Your task to perform on an android device: find snoozed emails in the gmail app Image 0: 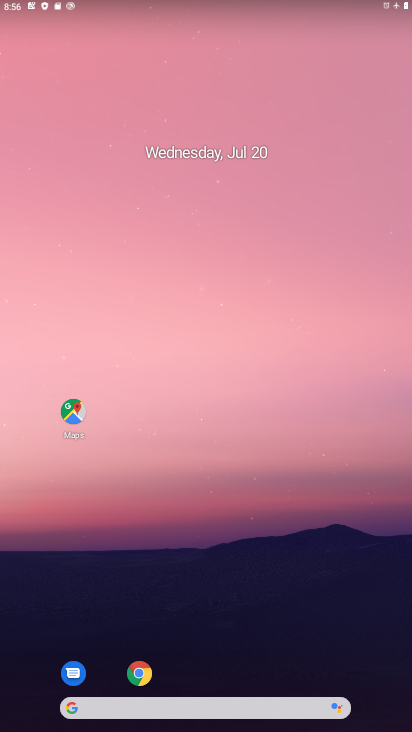
Step 0: drag from (241, 725) to (235, 231)
Your task to perform on an android device: find snoozed emails in the gmail app Image 1: 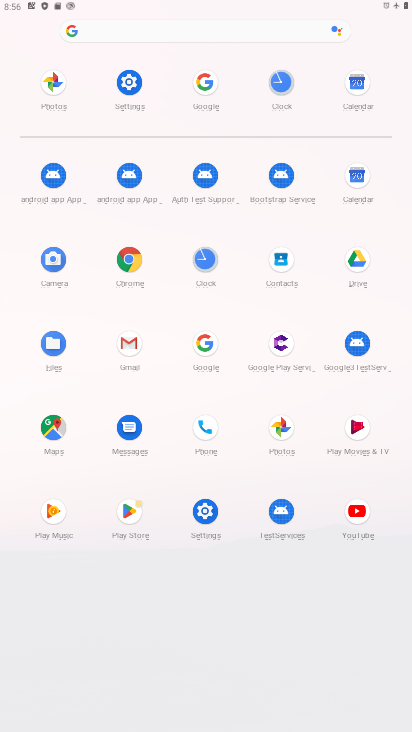
Step 1: click (129, 352)
Your task to perform on an android device: find snoozed emails in the gmail app Image 2: 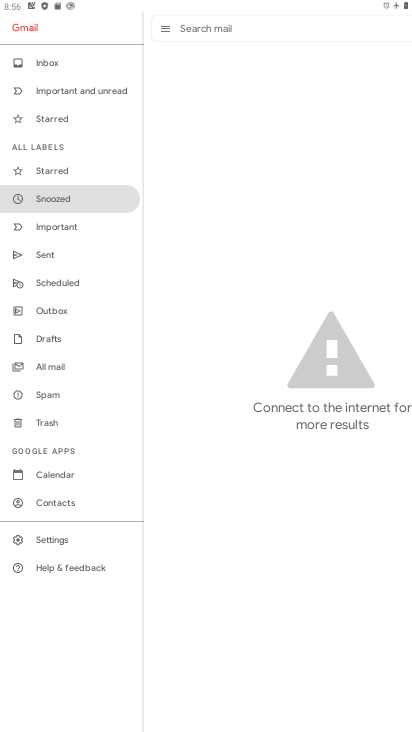
Step 2: click (62, 202)
Your task to perform on an android device: find snoozed emails in the gmail app Image 3: 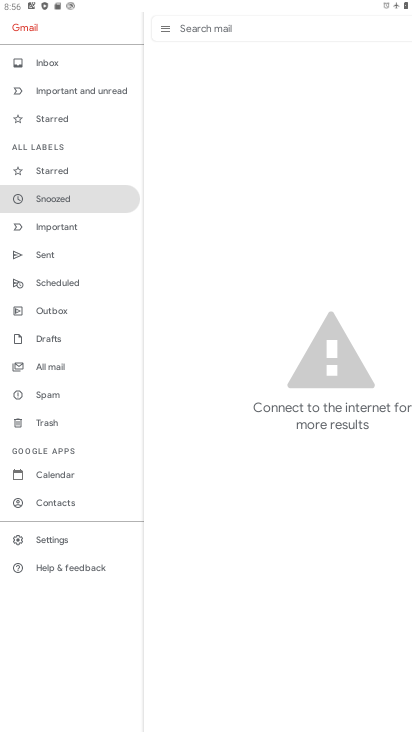
Step 3: task complete